Your task to perform on an android device: delete a single message in the gmail app Image 0: 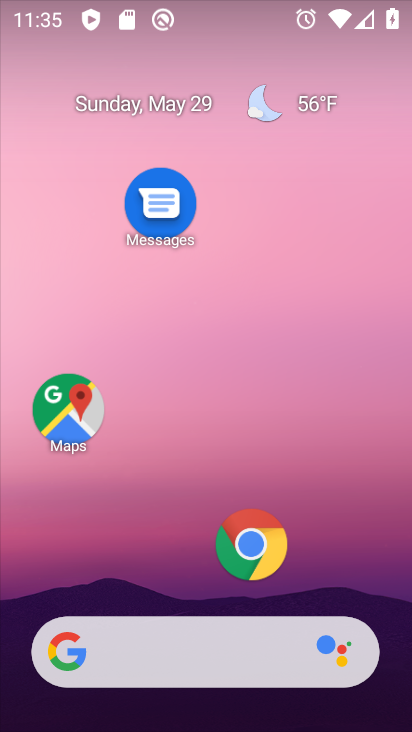
Step 0: drag from (191, 570) to (200, 97)
Your task to perform on an android device: delete a single message in the gmail app Image 1: 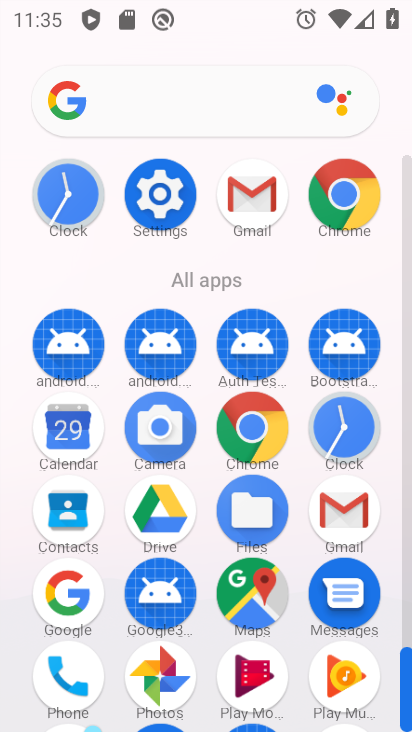
Step 1: click (341, 508)
Your task to perform on an android device: delete a single message in the gmail app Image 2: 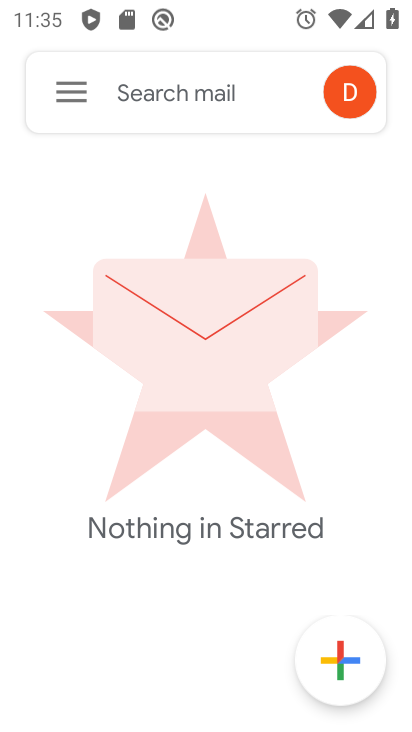
Step 2: task complete